Your task to perform on an android device: see sites visited before in the chrome app Image 0: 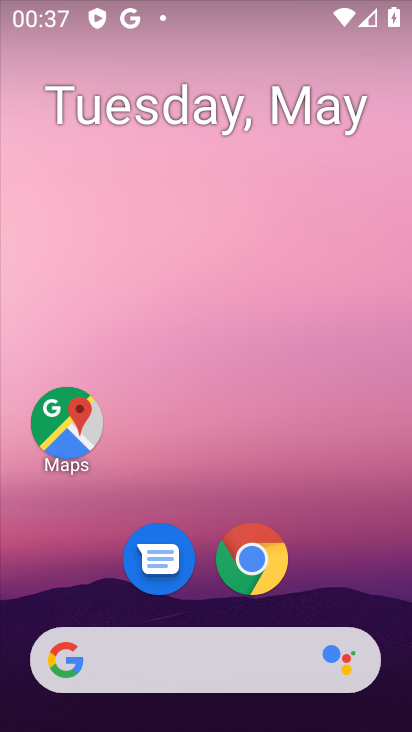
Step 0: click (249, 558)
Your task to perform on an android device: see sites visited before in the chrome app Image 1: 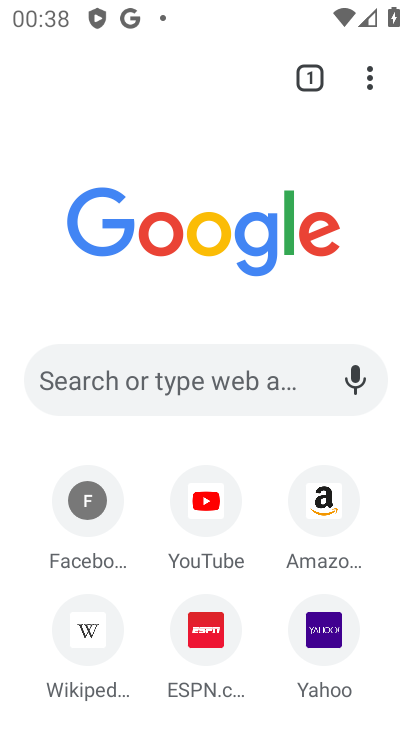
Step 1: click (375, 74)
Your task to perform on an android device: see sites visited before in the chrome app Image 2: 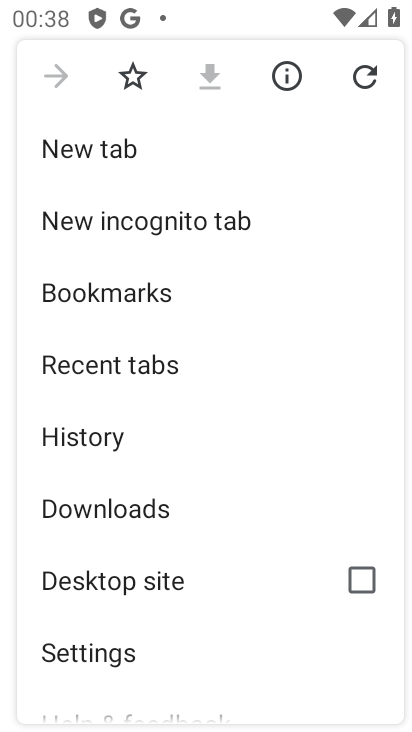
Step 2: drag from (164, 551) to (153, 213)
Your task to perform on an android device: see sites visited before in the chrome app Image 3: 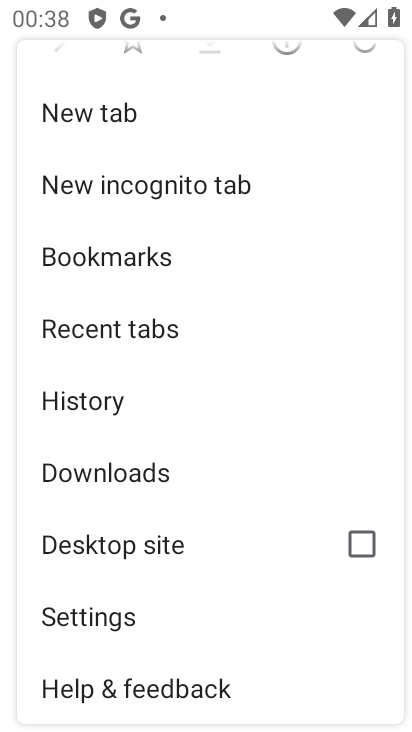
Step 3: drag from (135, 512) to (120, 300)
Your task to perform on an android device: see sites visited before in the chrome app Image 4: 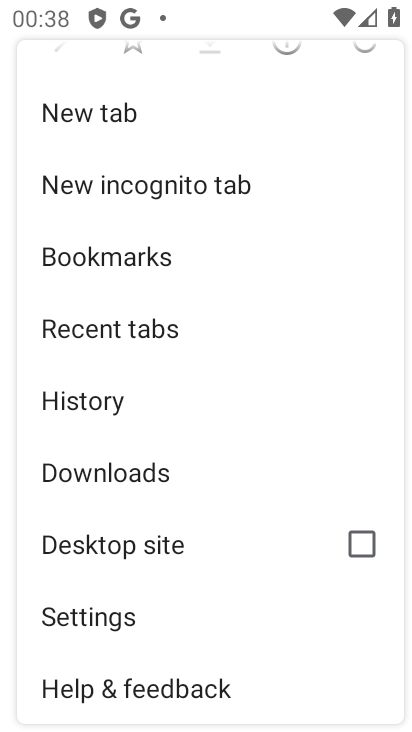
Step 4: click (82, 602)
Your task to perform on an android device: see sites visited before in the chrome app Image 5: 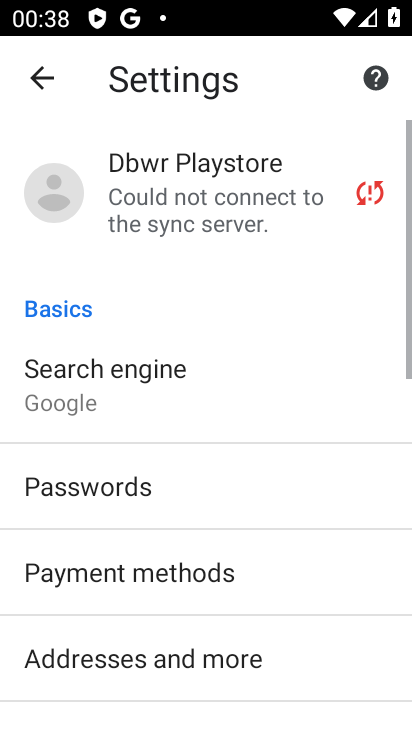
Step 5: drag from (140, 586) to (154, 327)
Your task to perform on an android device: see sites visited before in the chrome app Image 6: 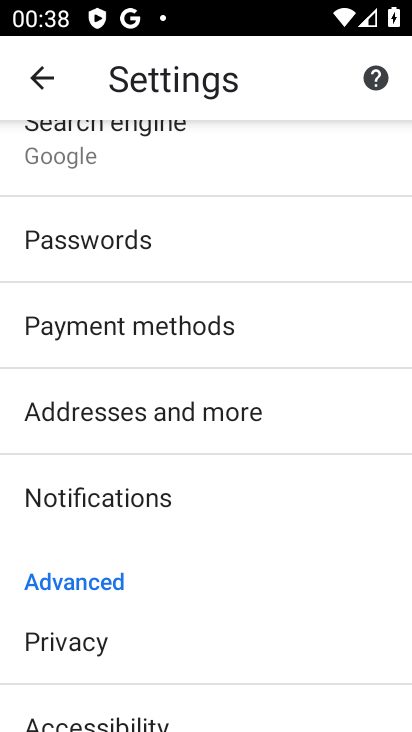
Step 6: drag from (223, 478) to (192, 240)
Your task to perform on an android device: see sites visited before in the chrome app Image 7: 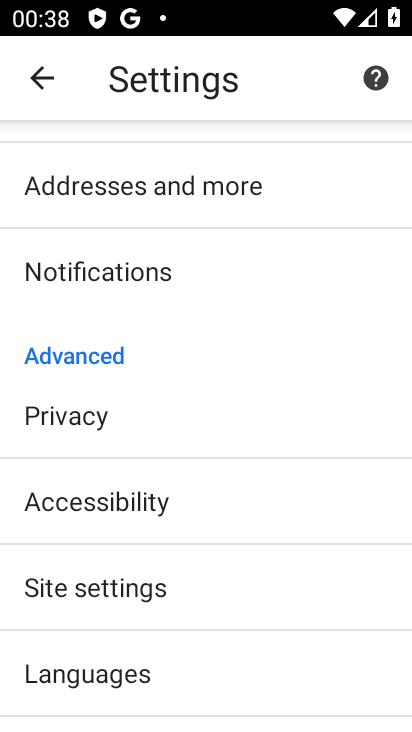
Step 7: drag from (158, 518) to (158, 241)
Your task to perform on an android device: see sites visited before in the chrome app Image 8: 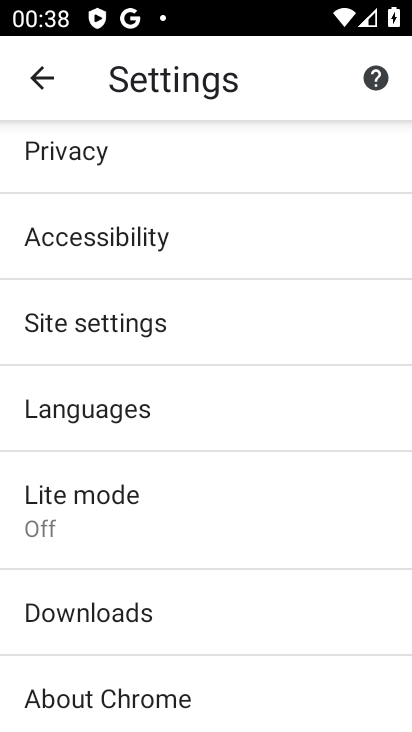
Step 8: click (200, 700)
Your task to perform on an android device: see sites visited before in the chrome app Image 9: 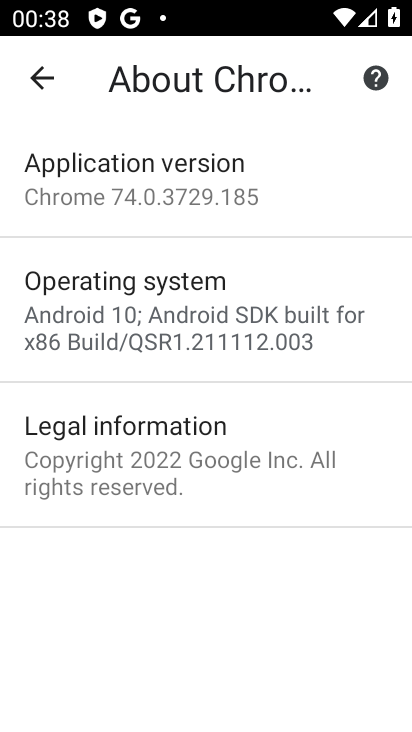
Step 9: task complete